Your task to perform on an android device: change alarm snooze length Image 0: 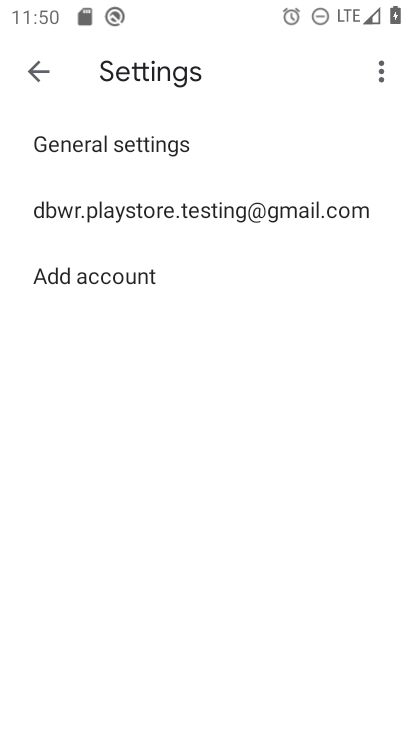
Step 0: press home button
Your task to perform on an android device: change alarm snooze length Image 1: 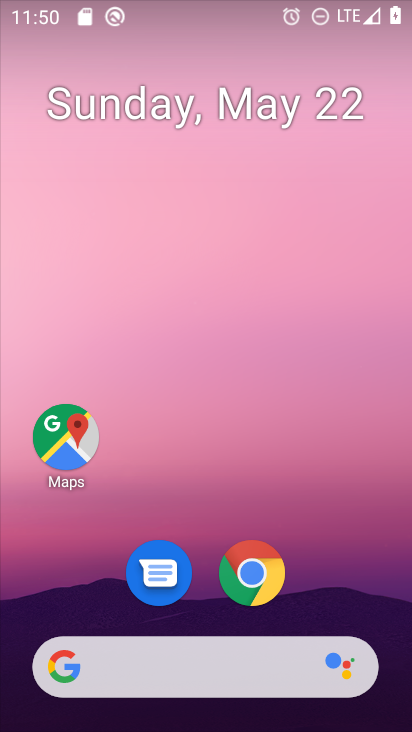
Step 1: drag from (320, 607) to (362, 75)
Your task to perform on an android device: change alarm snooze length Image 2: 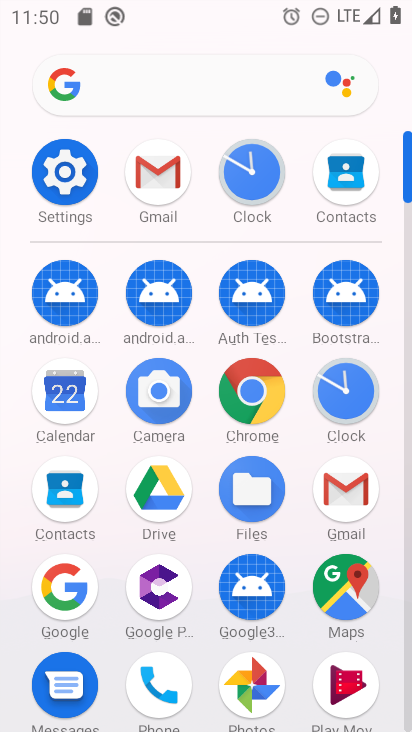
Step 2: click (360, 376)
Your task to perform on an android device: change alarm snooze length Image 3: 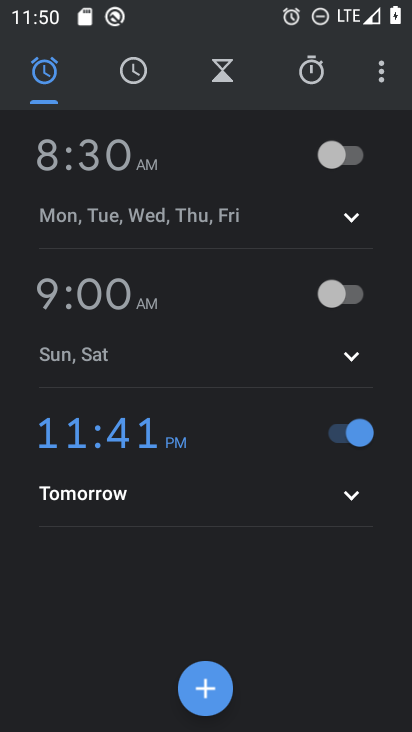
Step 3: click (381, 68)
Your task to perform on an android device: change alarm snooze length Image 4: 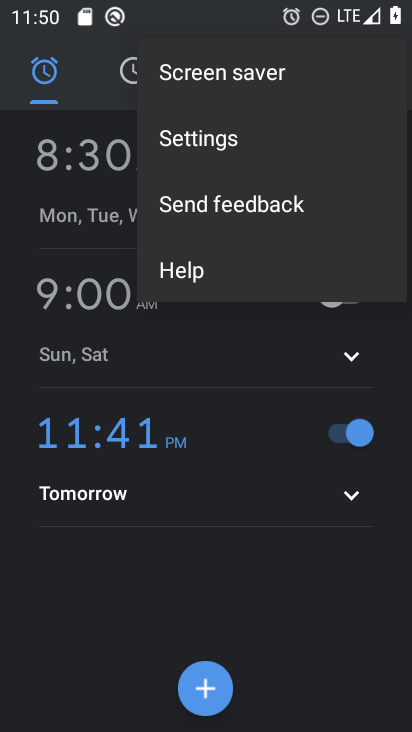
Step 4: click (216, 128)
Your task to perform on an android device: change alarm snooze length Image 5: 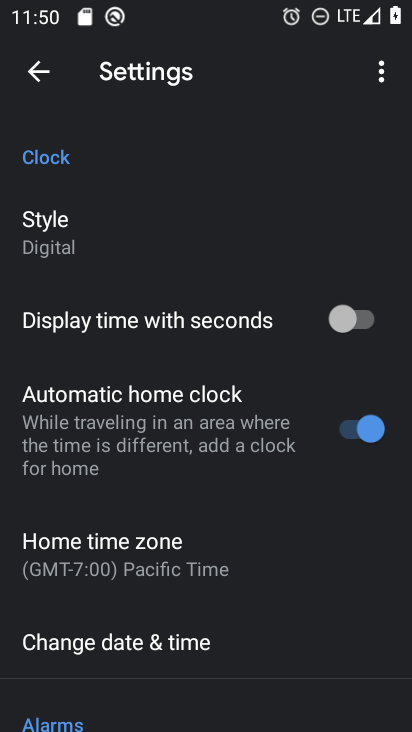
Step 5: drag from (142, 627) to (195, 342)
Your task to perform on an android device: change alarm snooze length Image 6: 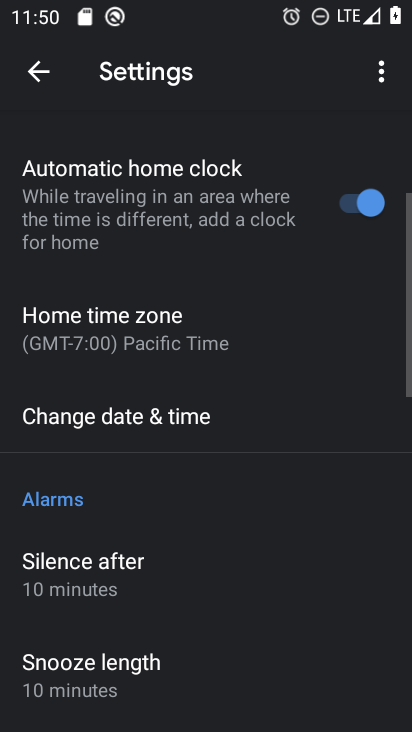
Step 6: drag from (218, 624) to (274, 330)
Your task to perform on an android device: change alarm snooze length Image 7: 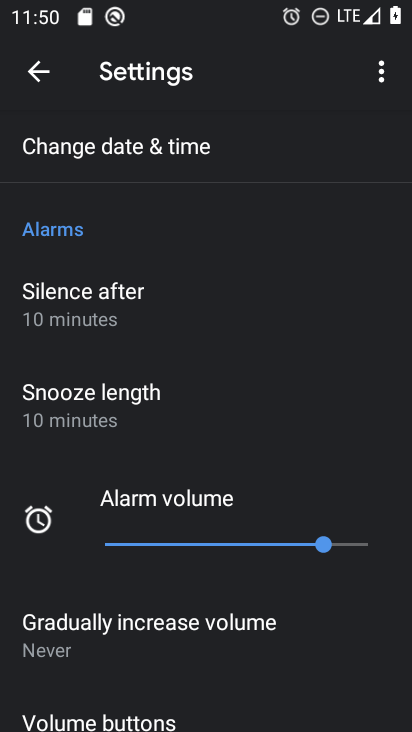
Step 7: click (137, 420)
Your task to perform on an android device: change alarm snooze length Image 8: 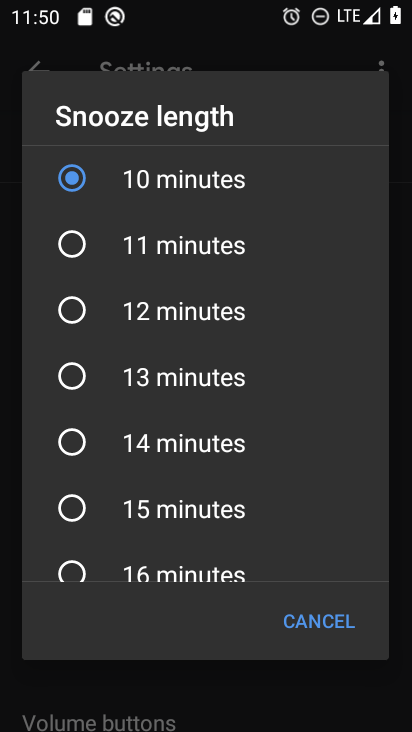
Step 8: click (197, 508)
Your task to perform on an android device: change alarm snooze length Image 9: 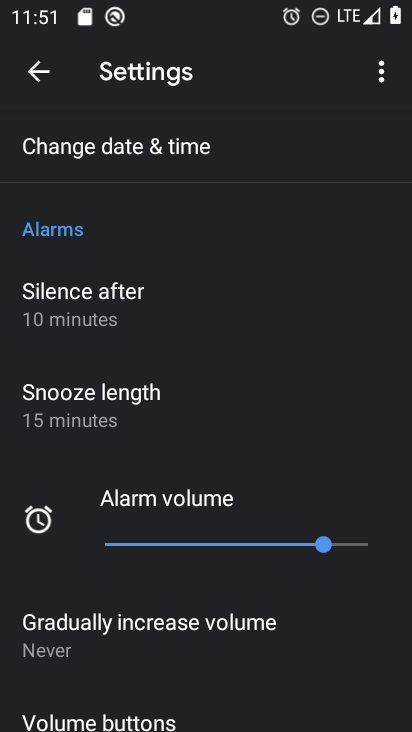
Step 9: task complete